Your task to perform on an android device: allow cookies in the chrome app Image 0: 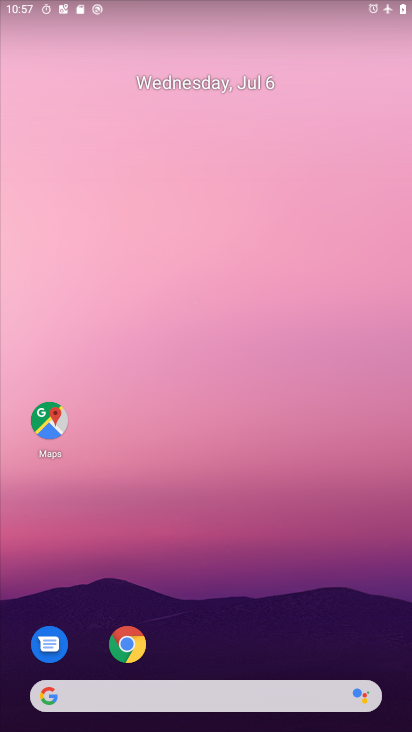
Step 0: drag from (226, 227) to (227, 160)
Your task to perform on an android device: allow cookies in the chrome app Image 1: 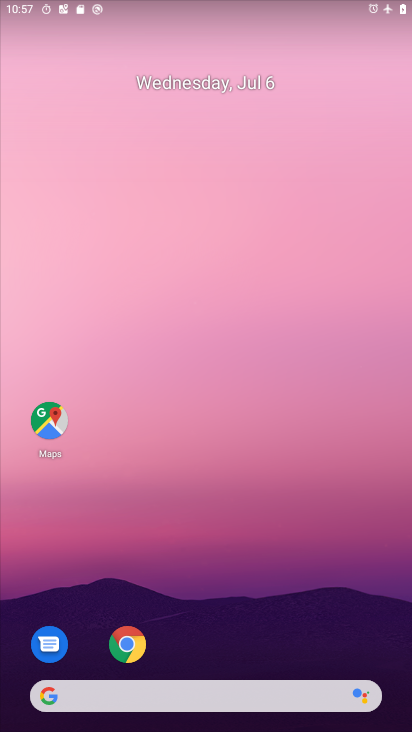
Step 1: drag from (193, 637) to (174, 131)
Your task to perform on an android device: allow cookies in the chrome app Image 2: 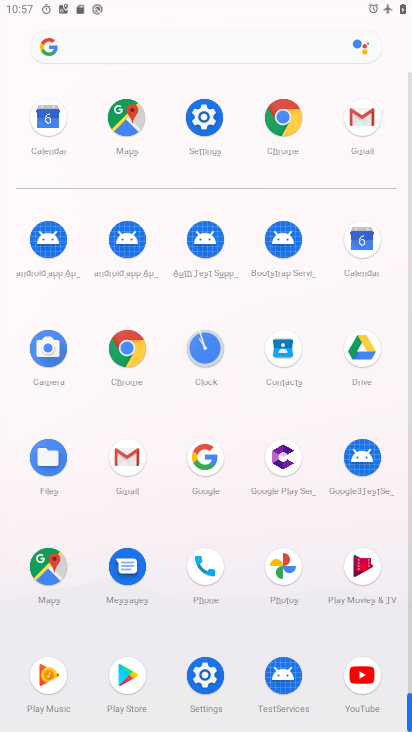
Step 2: click (283, 101)
Your task to perform on an android device: allow cookies in the chrome app Image 3: 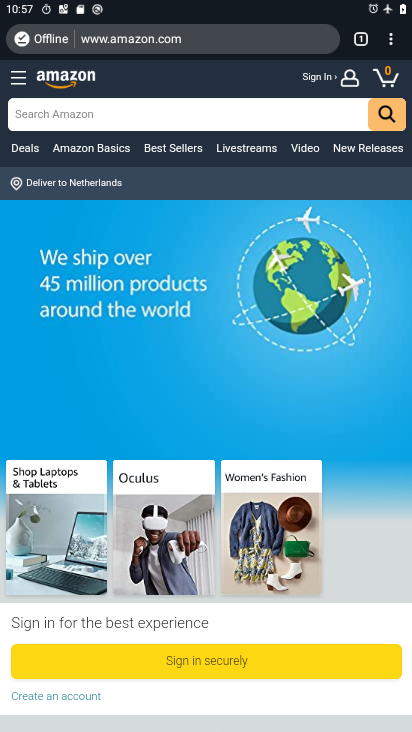
Step 3: click (393, 44)
Your task to perform on an android device: allow cookies in the chrome app Image 4: 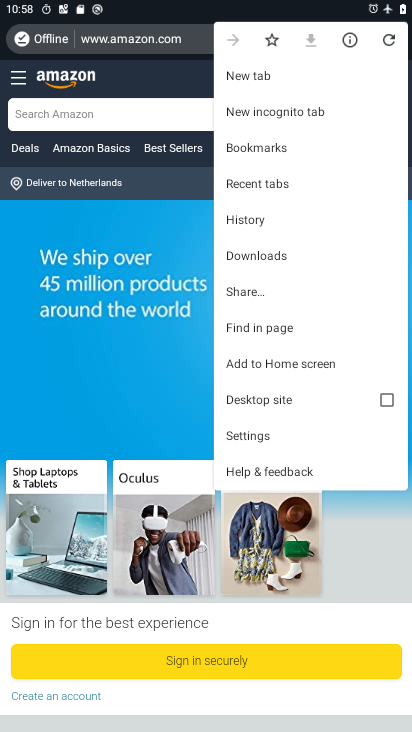
Step 4: click (258, 431)
Your task to perform on an android device: allow cookies in the chrome app Image 5: 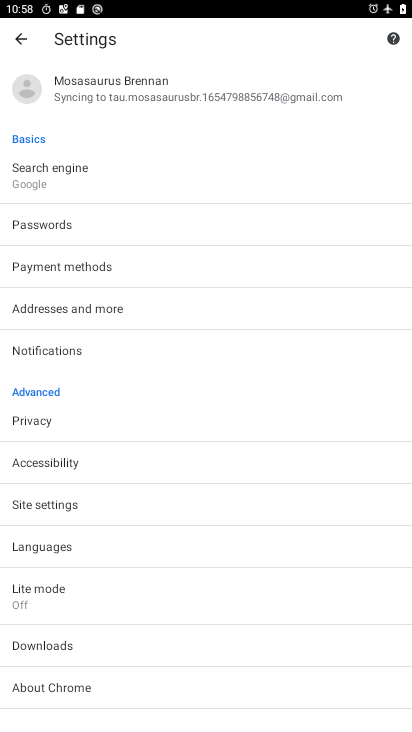
Step 5: click (256, 435)
Your task to perform on an android device: allow cookies in the chrome app Image 6: 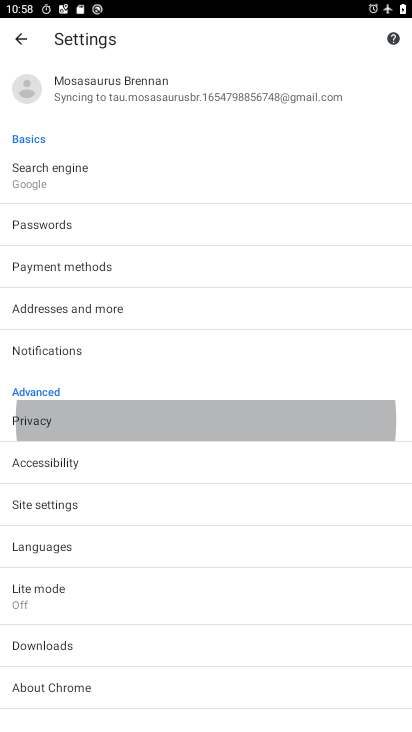
Step 6: click (256, 435)
Your task to perform on an android device: allow cookies in the chrome app Image 7: 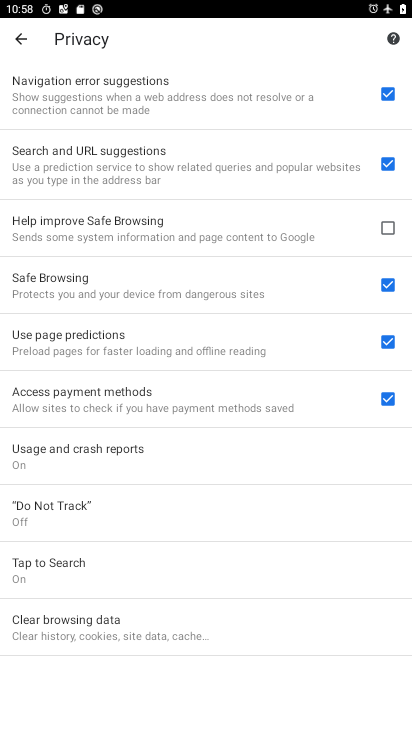
Step 7: click (21, 41)
Your task to perform on an android device: allow cookies in the chrome app Image 8: 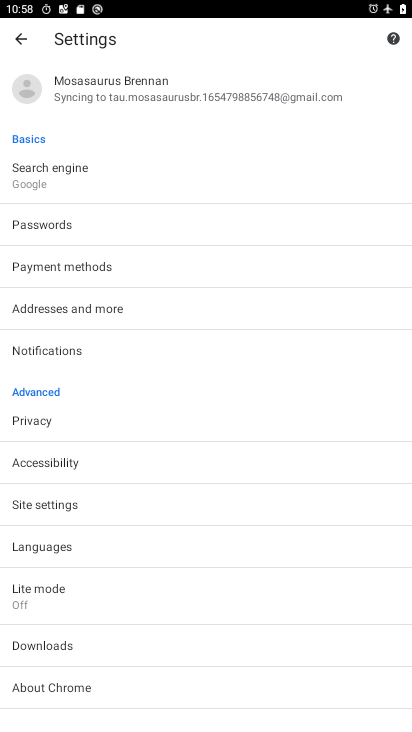
Step 8: drag from (142, 468) to (165, 195)
Your task to perform on an android device: allow cookies in the chrome app Image 9: 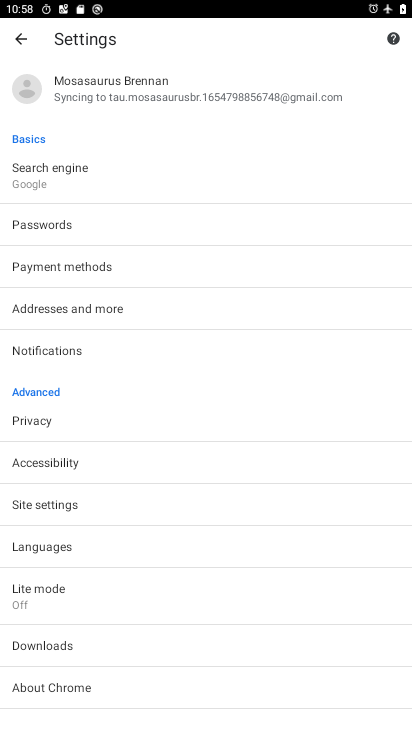
Step 9: drag from (185, 535) to (222, 302)
Your task to perform on an android device: allow cookies in the chrome app Image 10: 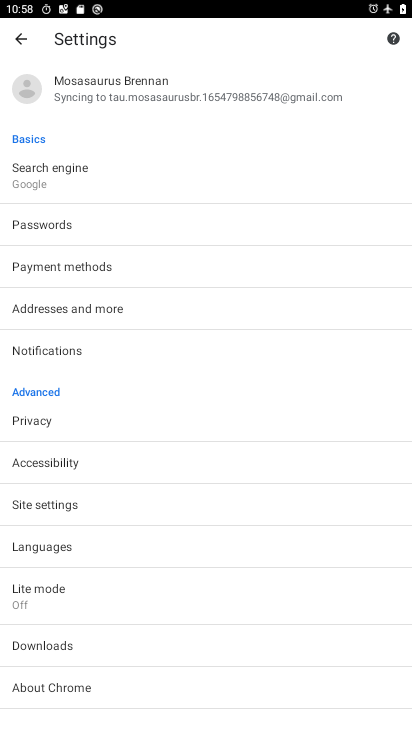
Step 10: click (62, 507)
Your task to perform on an android device: allow cookies in the chrome app Image 11: 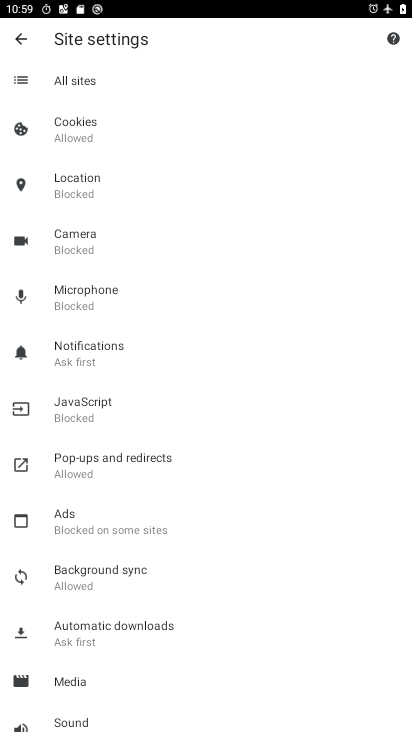
Step 11: drag from (115, 448) to (125, 275)
Your task to perform on an android device: allow cookies in the chrome app Image 12: 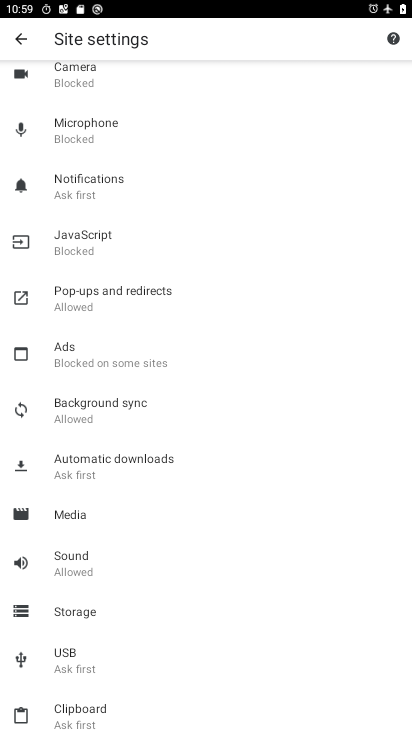
Step 12: click (84, 140)
Your task to perform on an android device: allow cookies in the chrome app Image 13: 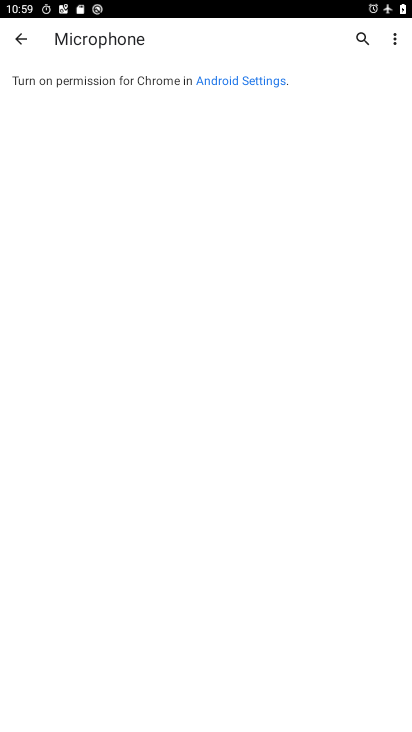
Step 13: task complete